Your task to perform on an android device: Show the shopping cart on bestbuy. Add "apple airpods pro" to the cart on bestbuy Image 0: 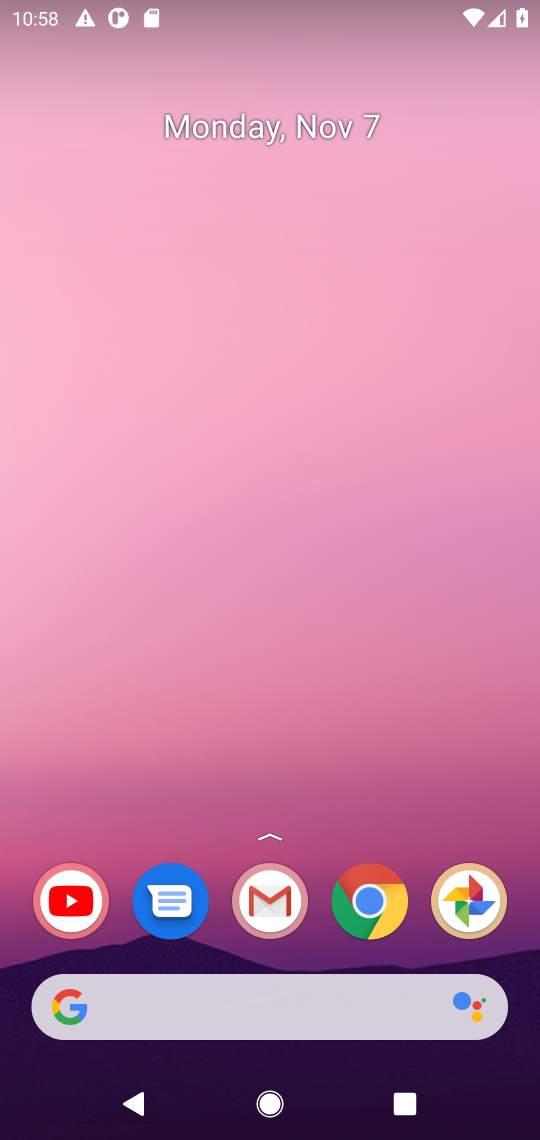
Step 0: click (364, 927)
Your task to perform on an android device: Show the shopping cart on bestbuy. Add "apple airpods pro" to the cart on bestbuy Image 1: 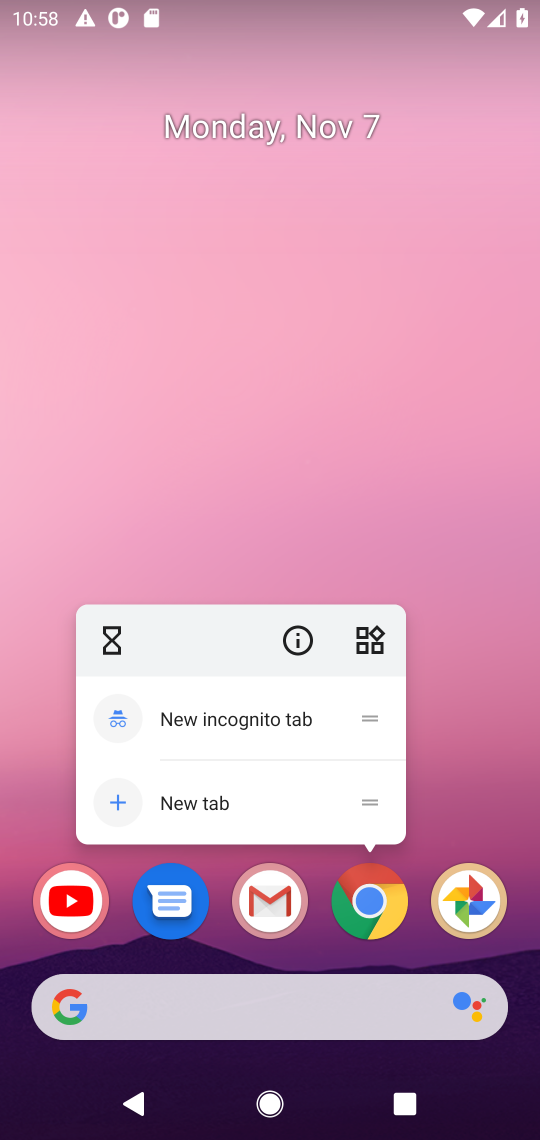
Step 1: click (364, 927)
Your task to perform on an android device: Show the shopping cart on bestbuy. Add "apple airpods pro" to the cart on bestbuy Image 2: 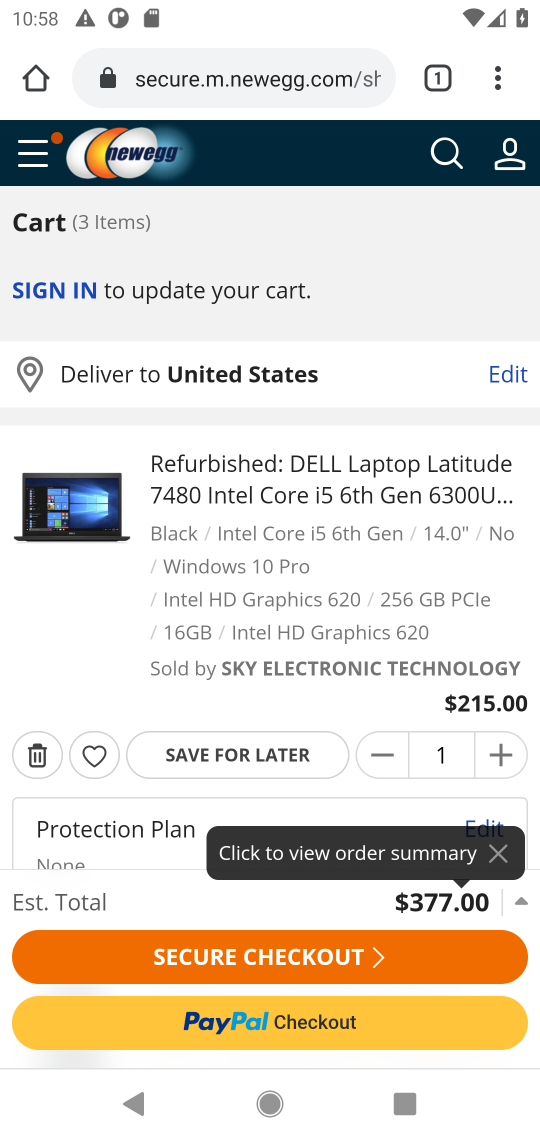
Step 2: click (169, 87)
Your task to perform on an android device: Show the shopping cart on bestbuy. Add "apple airpods pro" to the cart on bestbuy Image 3: 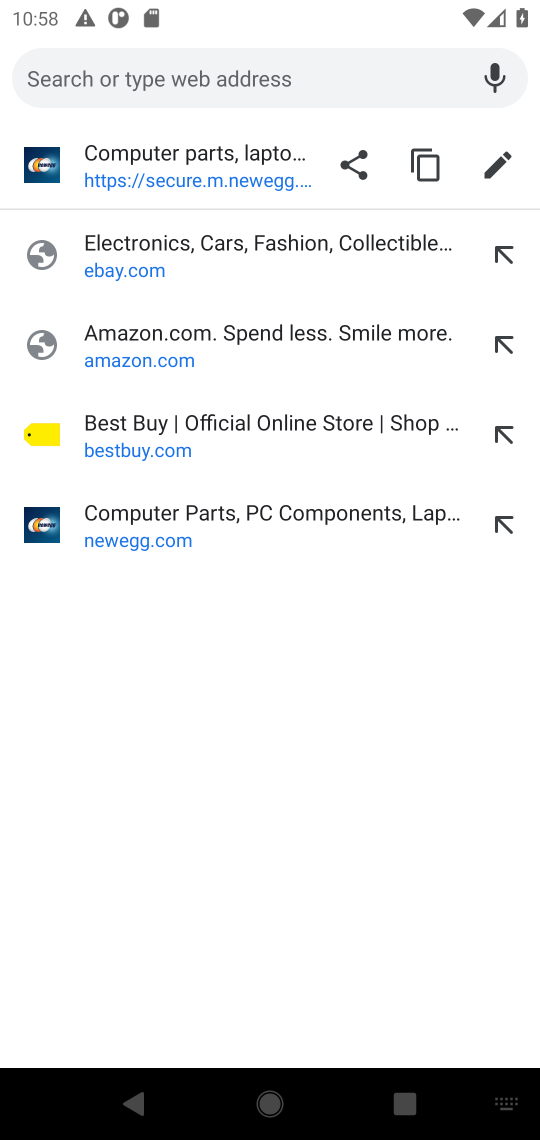
Step 3: type "bestbuy"
Your task to perform on an android device: Show the shopping cart on bestbuy. Add "apple airpods pro" to the cart on bestbuy Image 4: 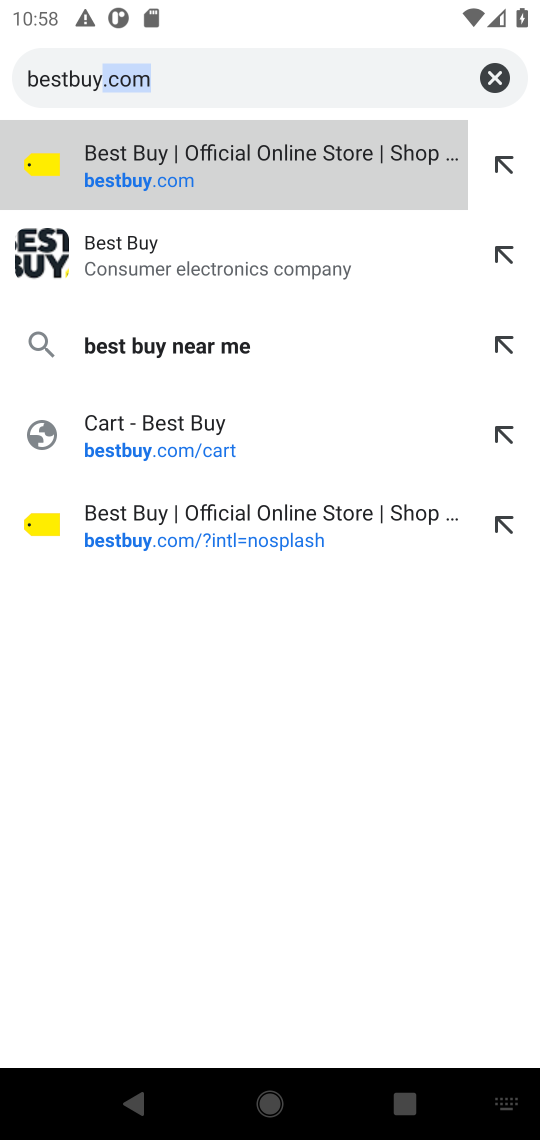
Step 4: click (184, 150)
Your task to perform on an android device: Show the shopping cart on bestbuy. Add "apple airpods pro" to the cart on bestbuy Image 5: 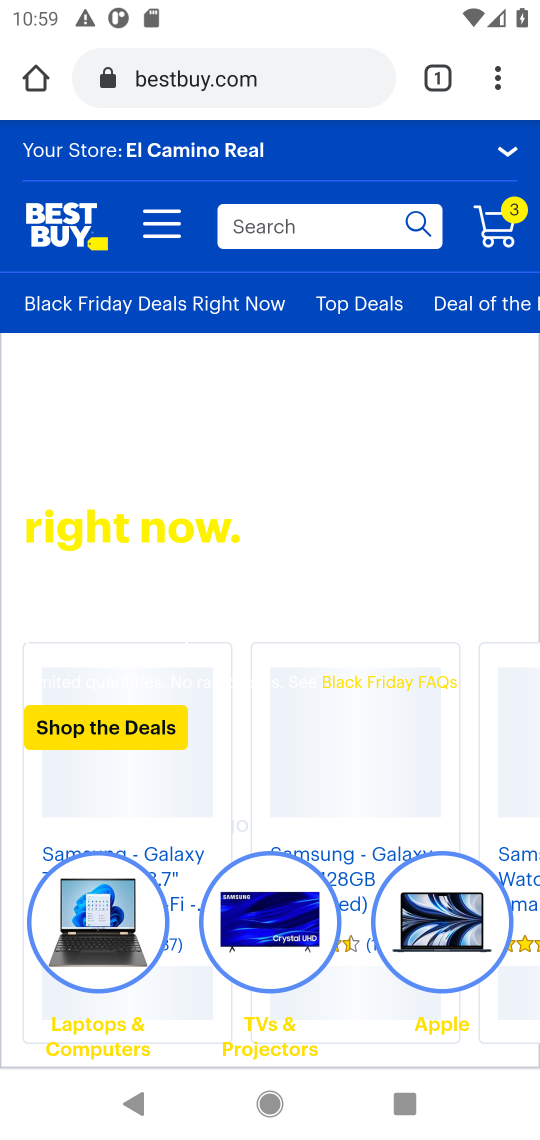
Step 5: click (358, 216)
Your task to perform on an android device: Show the shopping cart on bestbuy. Add "apple airpods pro" to the cart on bestbuy Image 6: 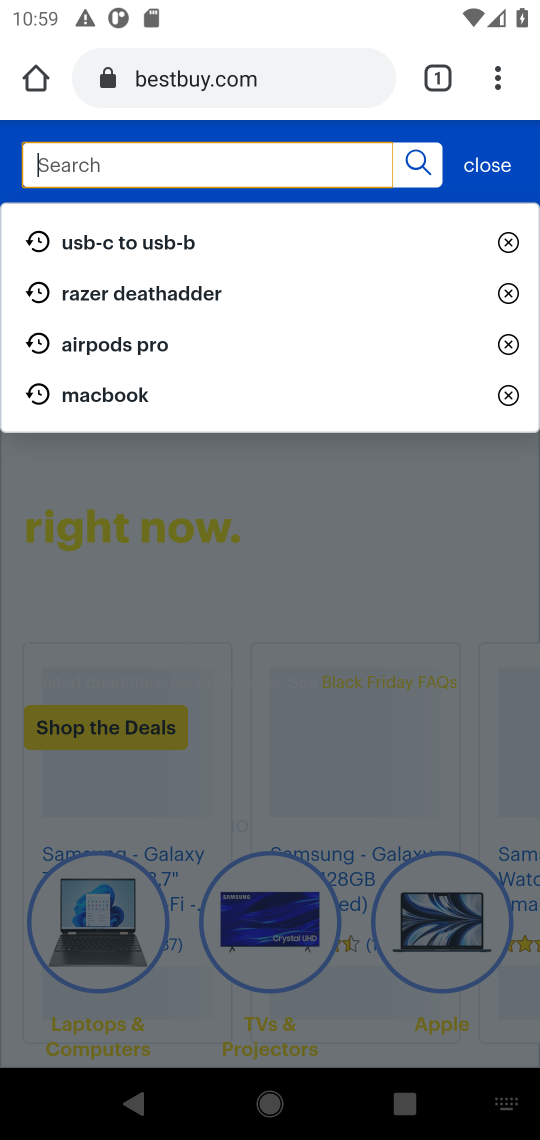
Step 6: type "apple airpods"
Your task to perform on an android device: Show the shopping cart on bestbuy. Add "apple airpods pro" to the cart on bestbuy Image 7: 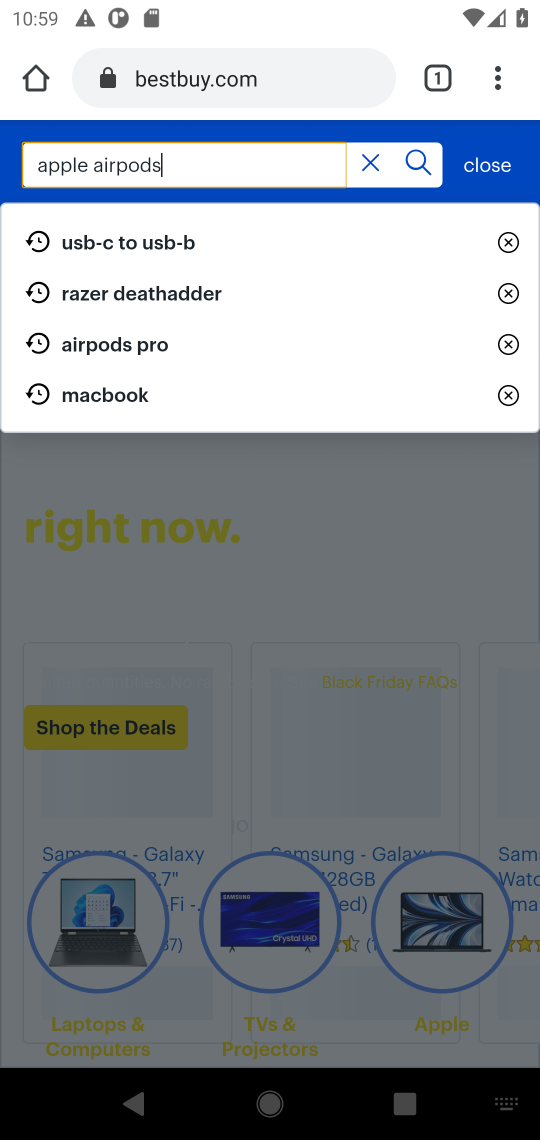
Step 7: press enter
Your task to perform on an android device: Show the shopping cart on bestbuy. Add "apple airpods pro" to the cart on bestbuy Image 8: 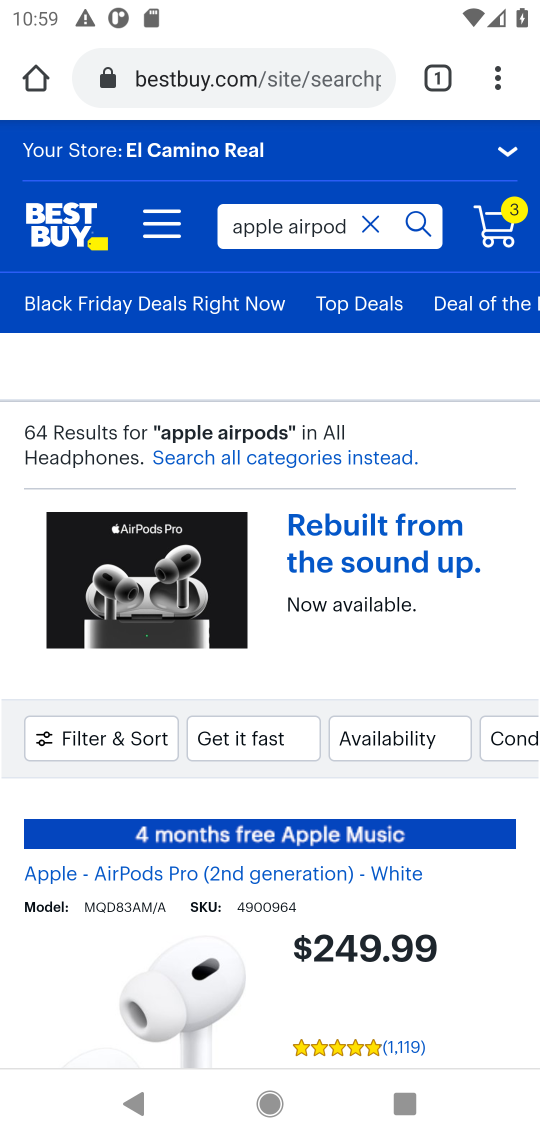
Step 8: drag from (253, 930) to (35, 86)
Your task to perform on an android device: Show the shopping cart on bestbuy. Add "apple airpods pro" to the cart on bestbuy Image 9: 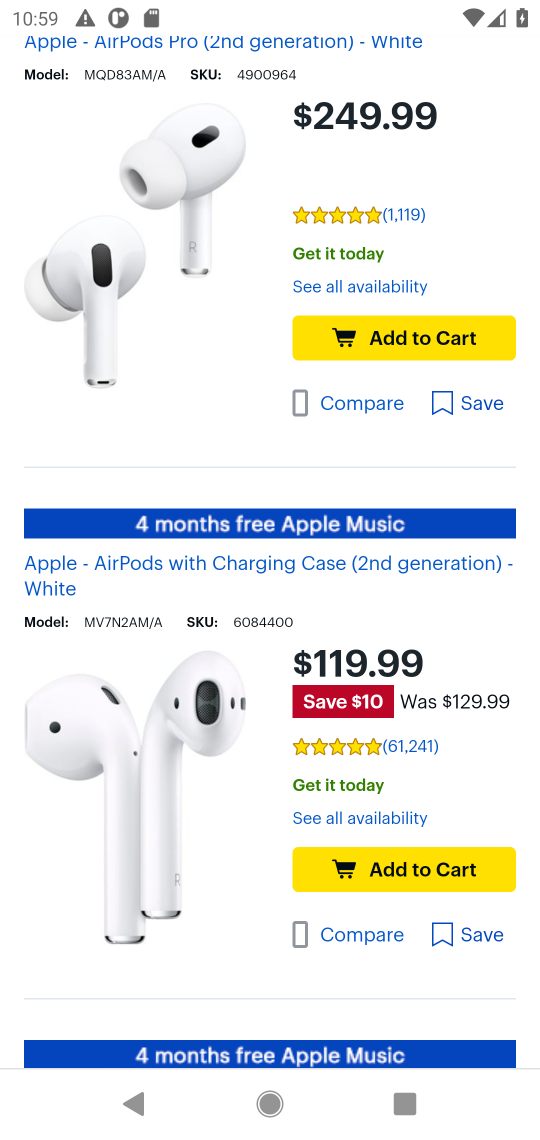
Step 9: click (353, 328)
Your task to perform on an android device: Show the shopping cart on bestbuy. Add "apple airpods pro" to the cart on bestbuy Image 10: 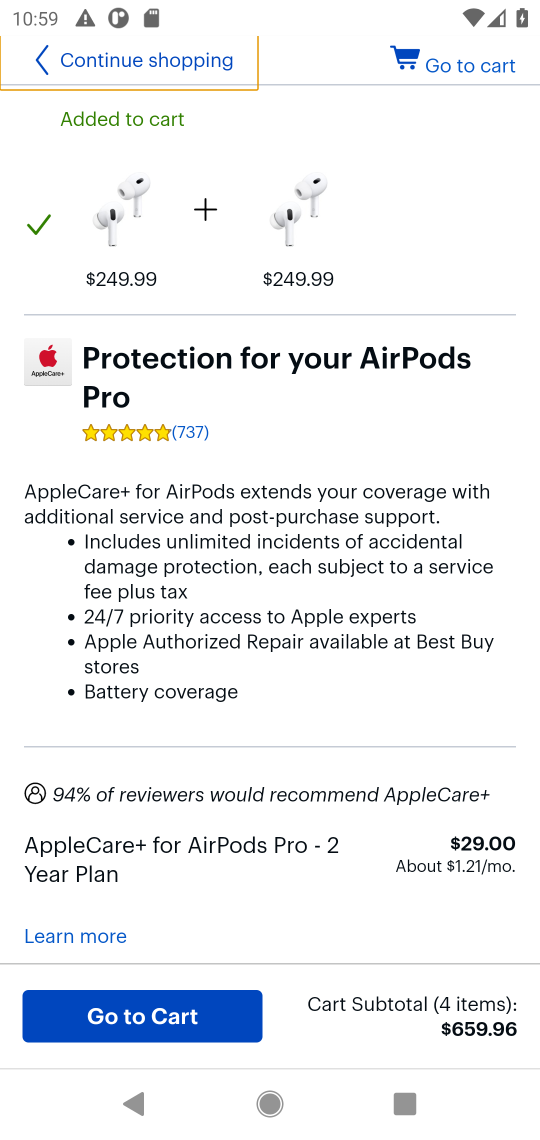
Step 10: task complete